Your task to perform on an android device: Go to Google maps Image 0: 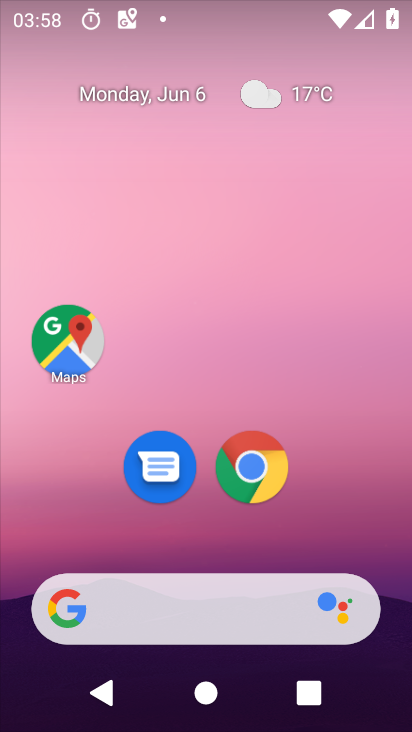
Step 0: press home button
Your task to perform on an android device: Go to Google maps Image 1: 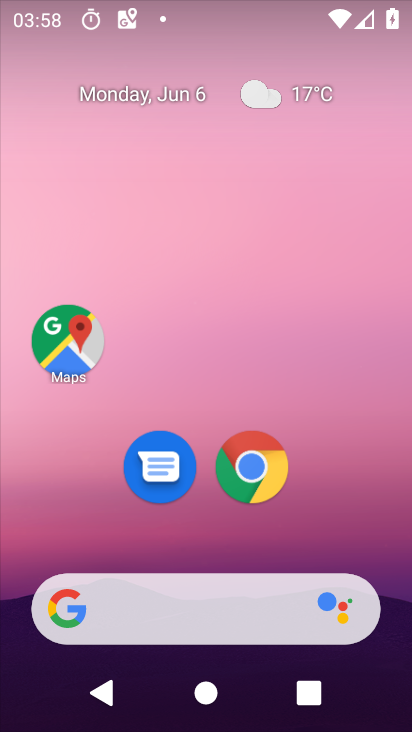
Step 1: click (71, 336)
Your task to perform on an android device: Go to Google maps Image 2: 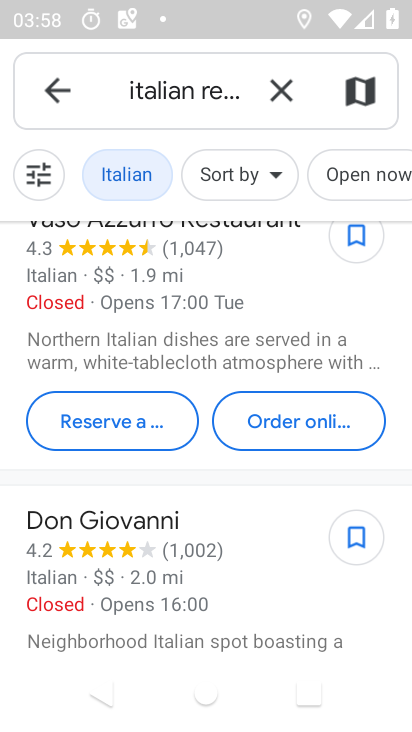
Step 2: click (276, 85)
Your task to perform on an android device: Go to Google maps Image 3: 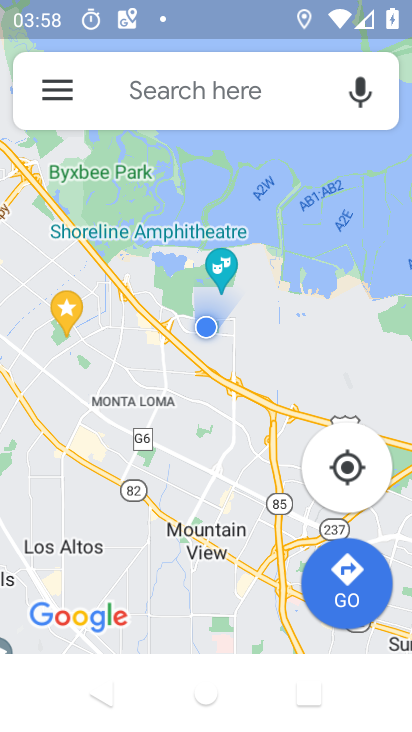
Step 3: task complete